Your task to perform on an android device: choose inbox layout in the gmail app Image 0: 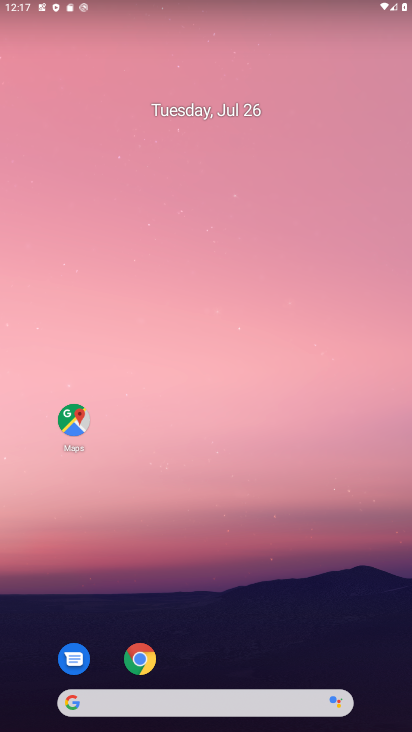
Step 0: click (210, 718)
Your task to perform on an android device: choose inbox layout in the gmail app Image 1: 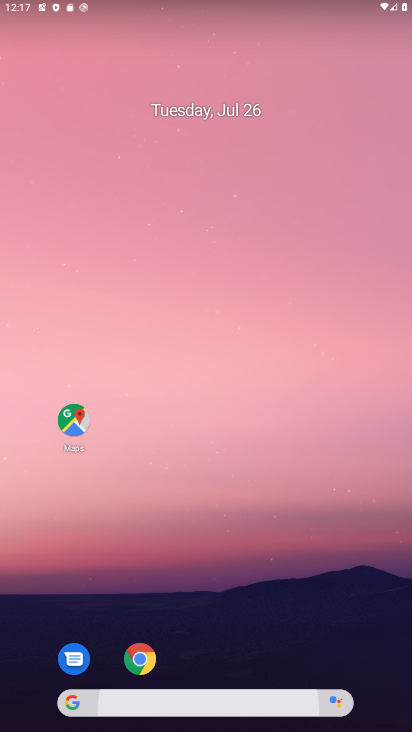
Step 1: drag from (213, 676) to (358, 88)
Your task to perform on an android device: choose inbox layout in the gmail app Image 2: 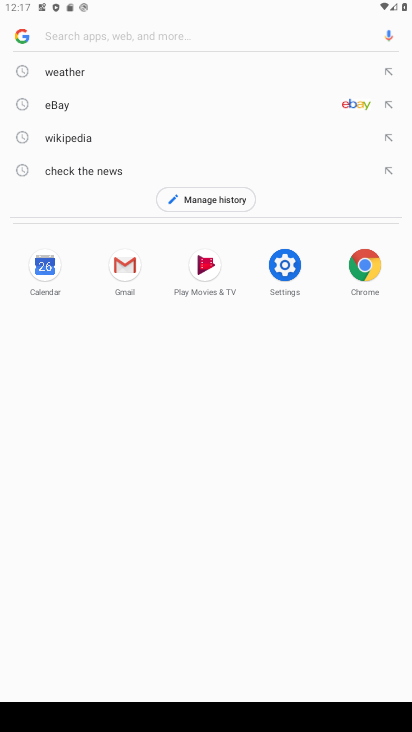
Step 2: press home button
Your task to perform on an android device: choose inbox layout in the gmail app Image 3: 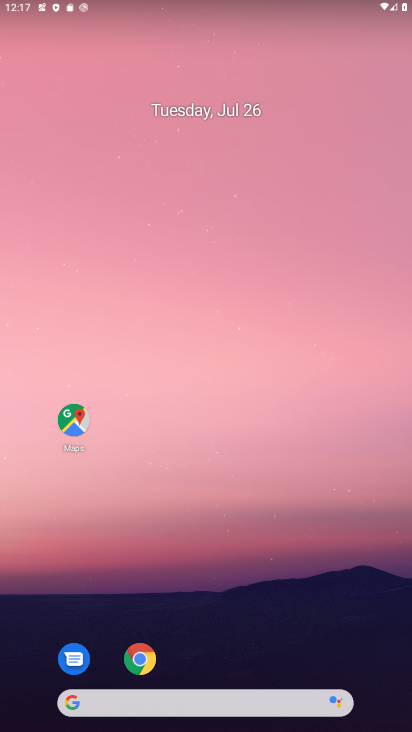
Step 3: drag from (170, 656) to (247, 346)
Your task to perform on an android device: choose inbox layout in the gmail app Image 4: 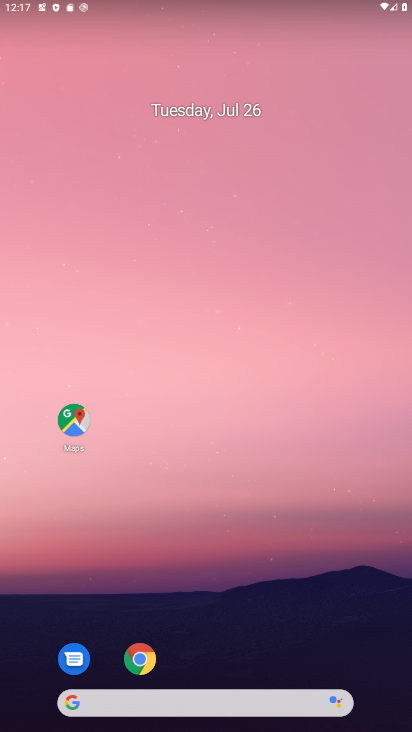
Step 4: drag from (199, 646) to (196, 394)
Your task to perform on an android device: choose inbox layout in the gmail app Image 5: 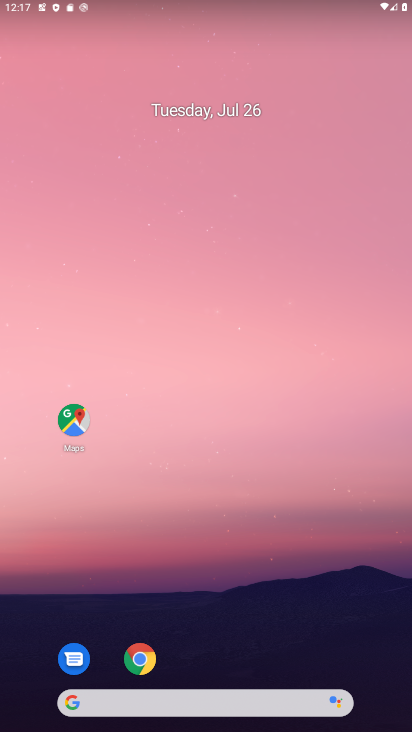
Step 5: drag from (212, 618) to (227, 348)
Your task to perform on an android device: choose inbox layout in the gmail app Image 6: 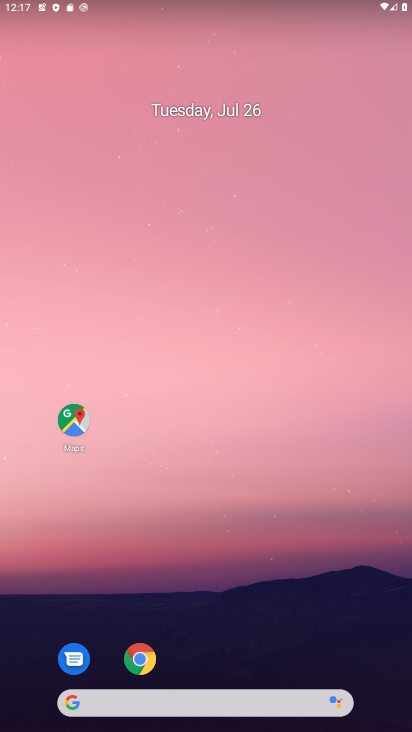
Step 6: drag from (183, 652) to (185, 398)
Your task to perform on an android device: choose inbox layout in the gmail app Image 7: 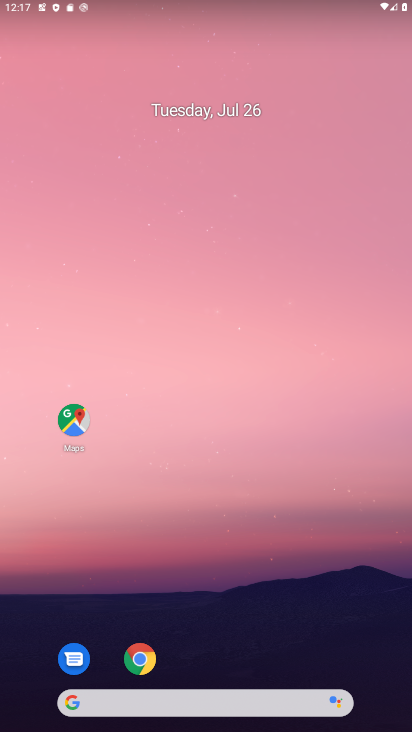
Step 7: drag from (205, 623) to (194, 293)
Your task to perform on an android device: choose inbox layout in the gmail app Image 8: 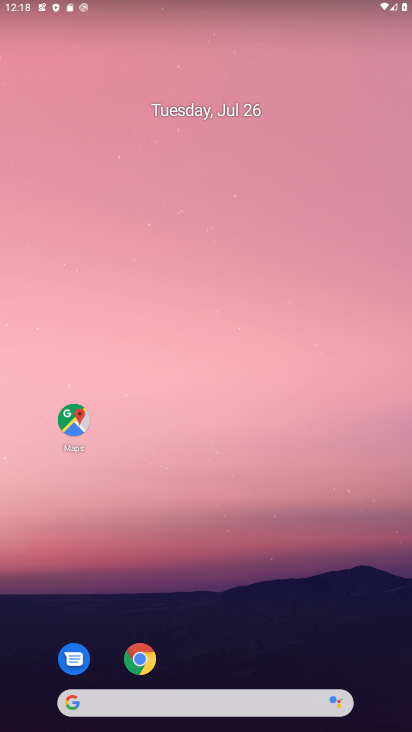
Step 8: drag from (160, 671) to (218, 190)
Your task to perform on an android device: choose inbox layout in the gmail app Image 9: 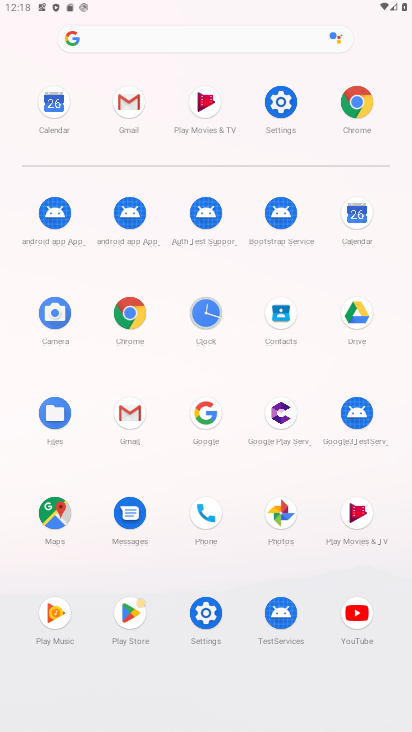
Step 9: click (135, 416)
Your task to perform on an android device: choose inbox layout in the gmail app Image 10: 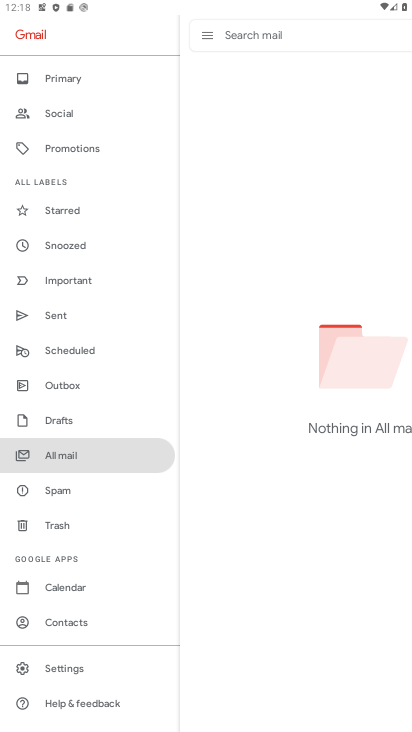
Step 10: click (75, 82)
Your task to perform on an android device: choose inbox layout in the gmail app Image 11: 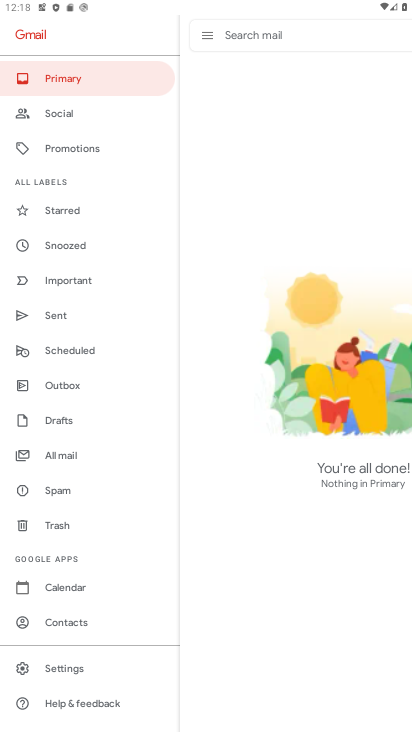
Step 11: task complete